Your task to perform on an android device: Search for asus zenbook on amazon.com, select the first entry, add it to the cart, then select checkout. Image 0: 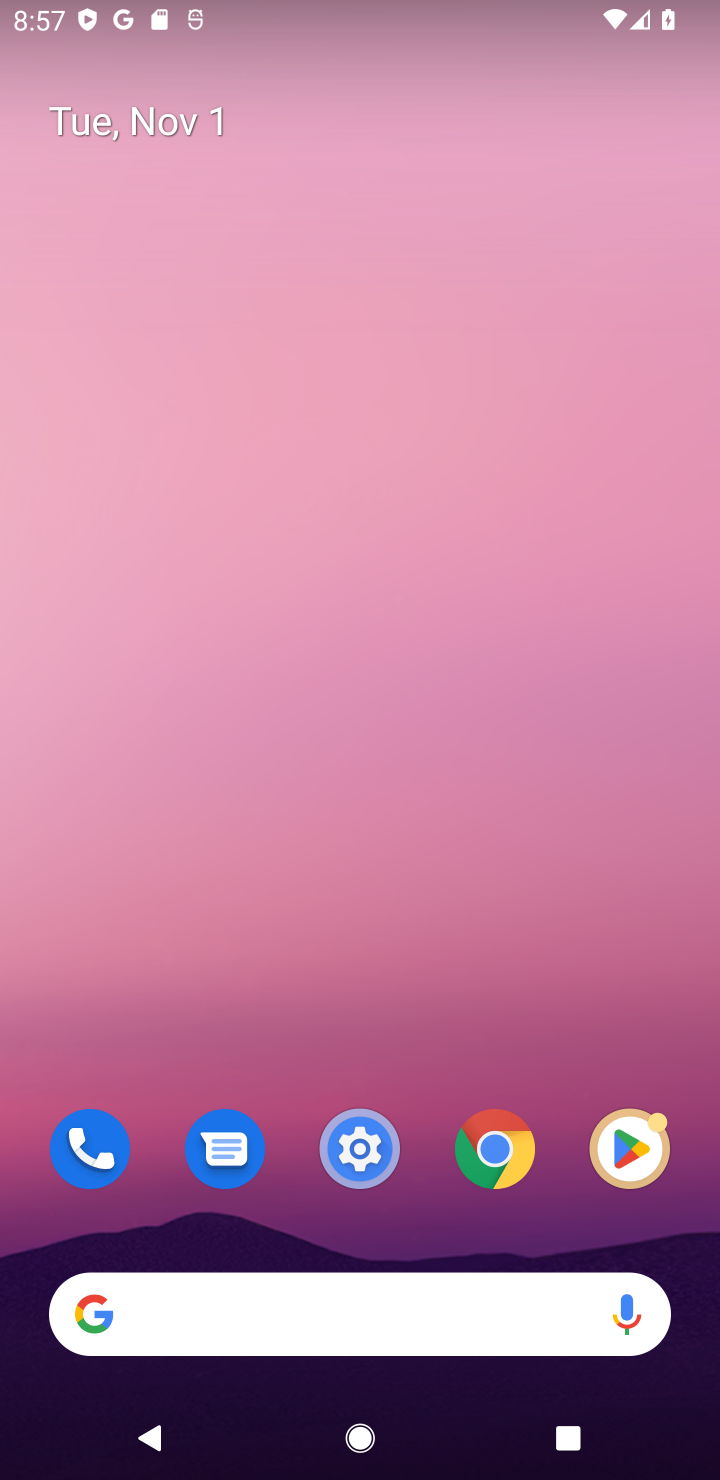
Step 0: click (160, 1308)
Your task to perform on an android device: Search for asus zenbook on amazon.com, select the first entry, add it to the cart, then select checkout. Image 1: 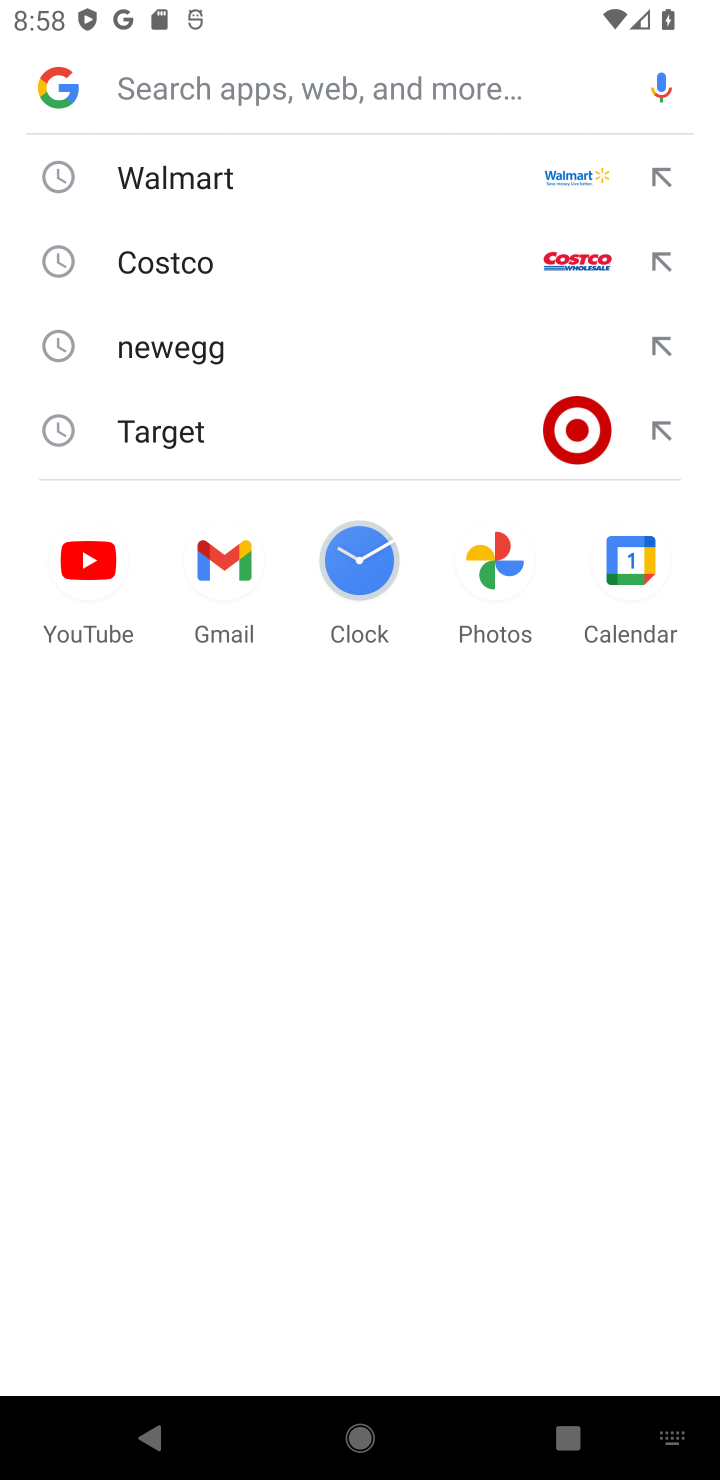
Step 1: type "amazon.com"
Your task to perform on an android device: Search for asus zenbook on amazon.com, select the first entry, add it to the cart, then select checkout. Image 2: 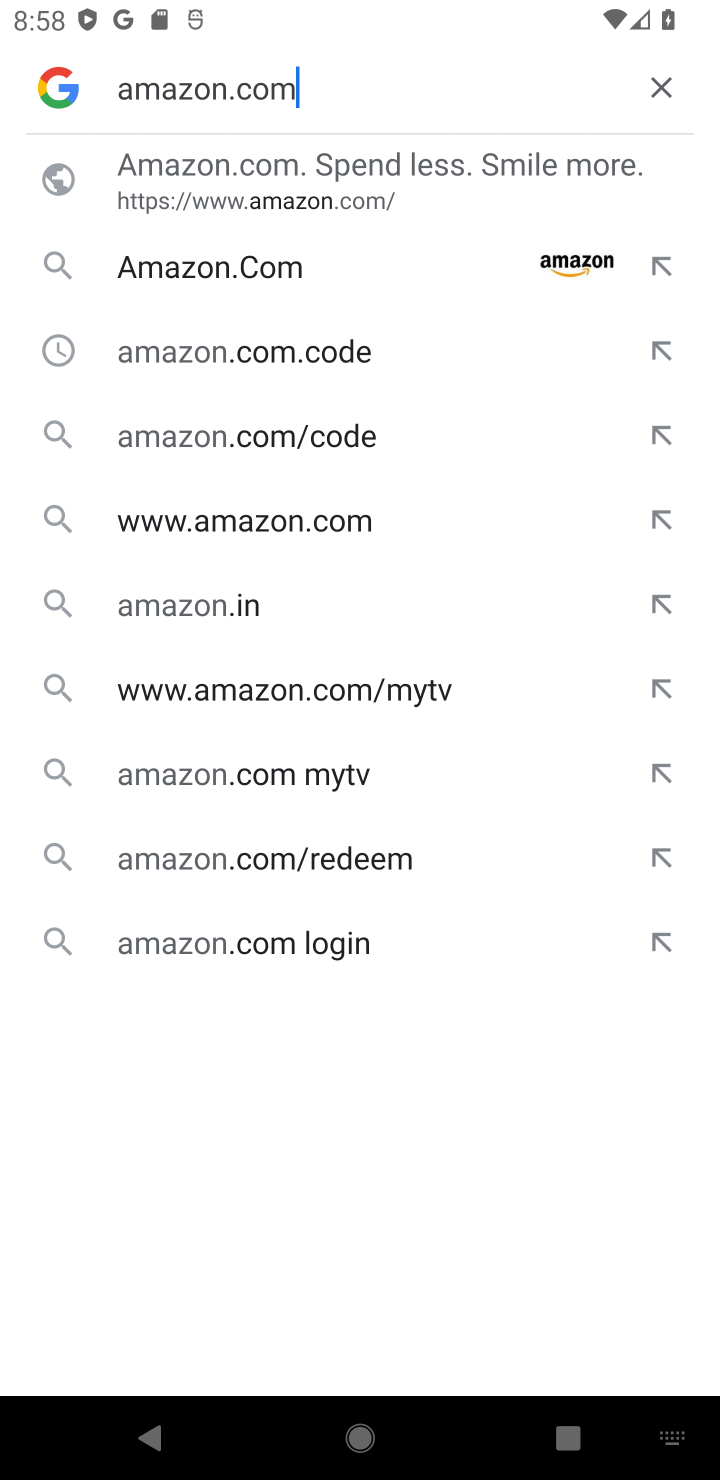
Step 2: press enter
Your task to perform on an android device: Search for asus zenbook on amazon.com, select the first entry, add it to the cart, then select checkout. Image 3: 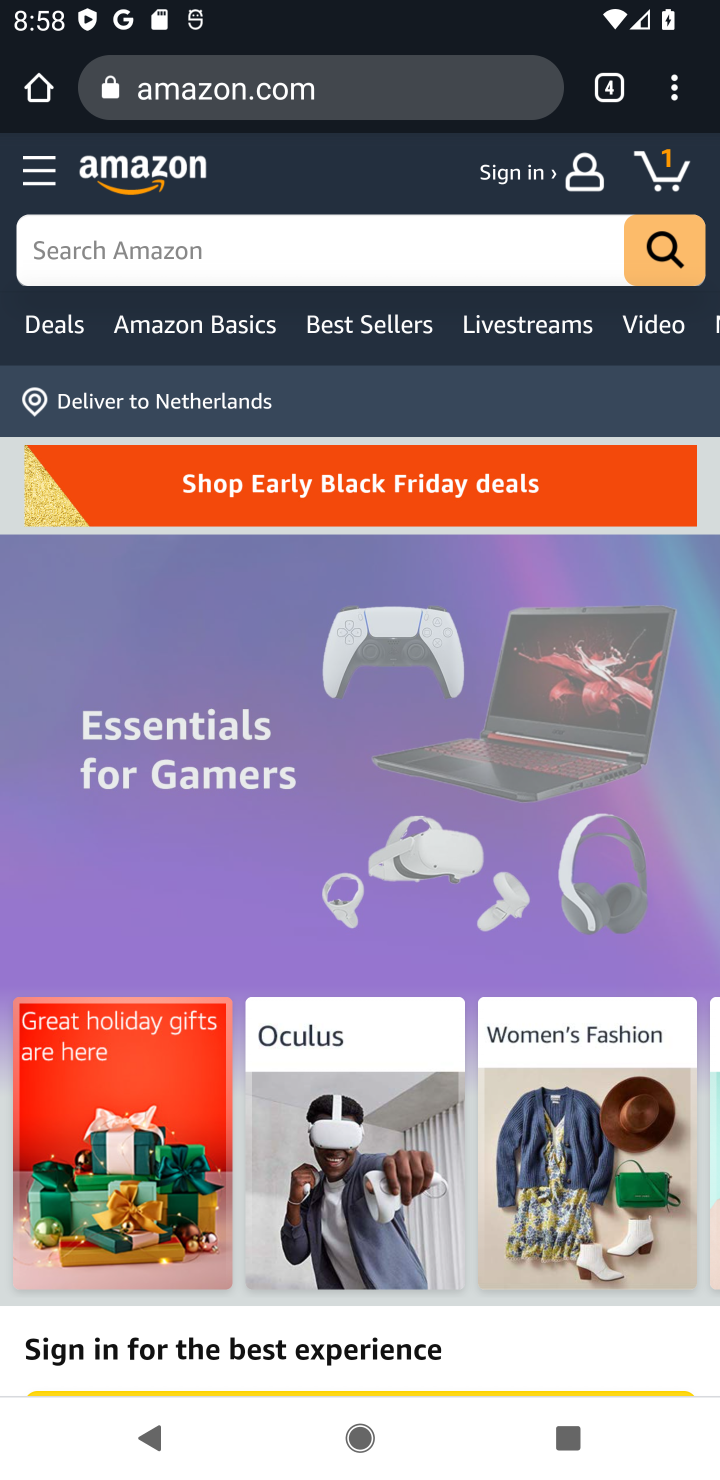
Step 3: click (70, 247)
Your task to perform on an android device: Search for asus zenbook on amazon.com, select the first entry, add it to the cart, then select checkout. Image 4: 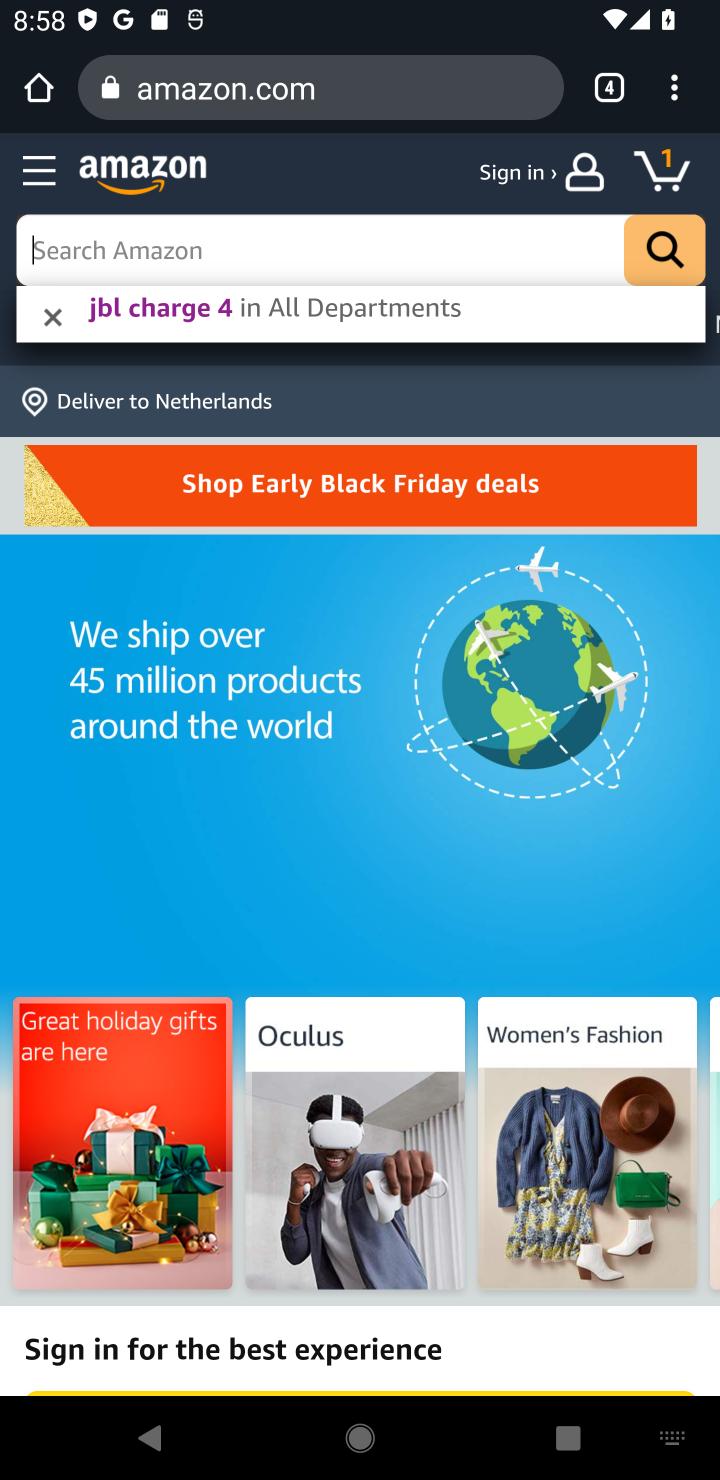
Step 4: type "asus zenbook"
Your task to perform on an android device: Search for asus zenbook on amazon.com, select the first entry, add it to the cart, then select checkout. Image 5: 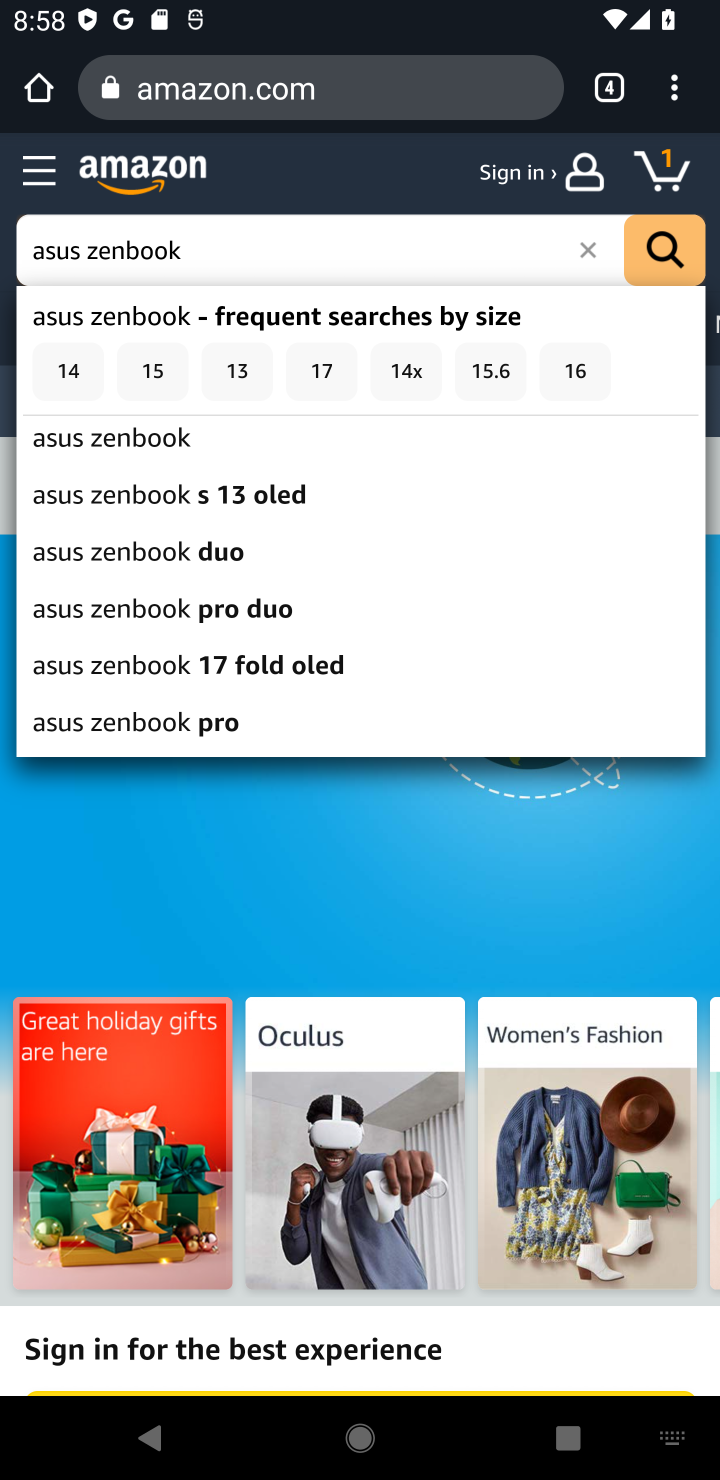
Step 5: click (666, 249)
Your task to perform on an android device: Search for asus zenbook on amazon.com, select the first entry, add it to the cart, then select checkout. Image 6: 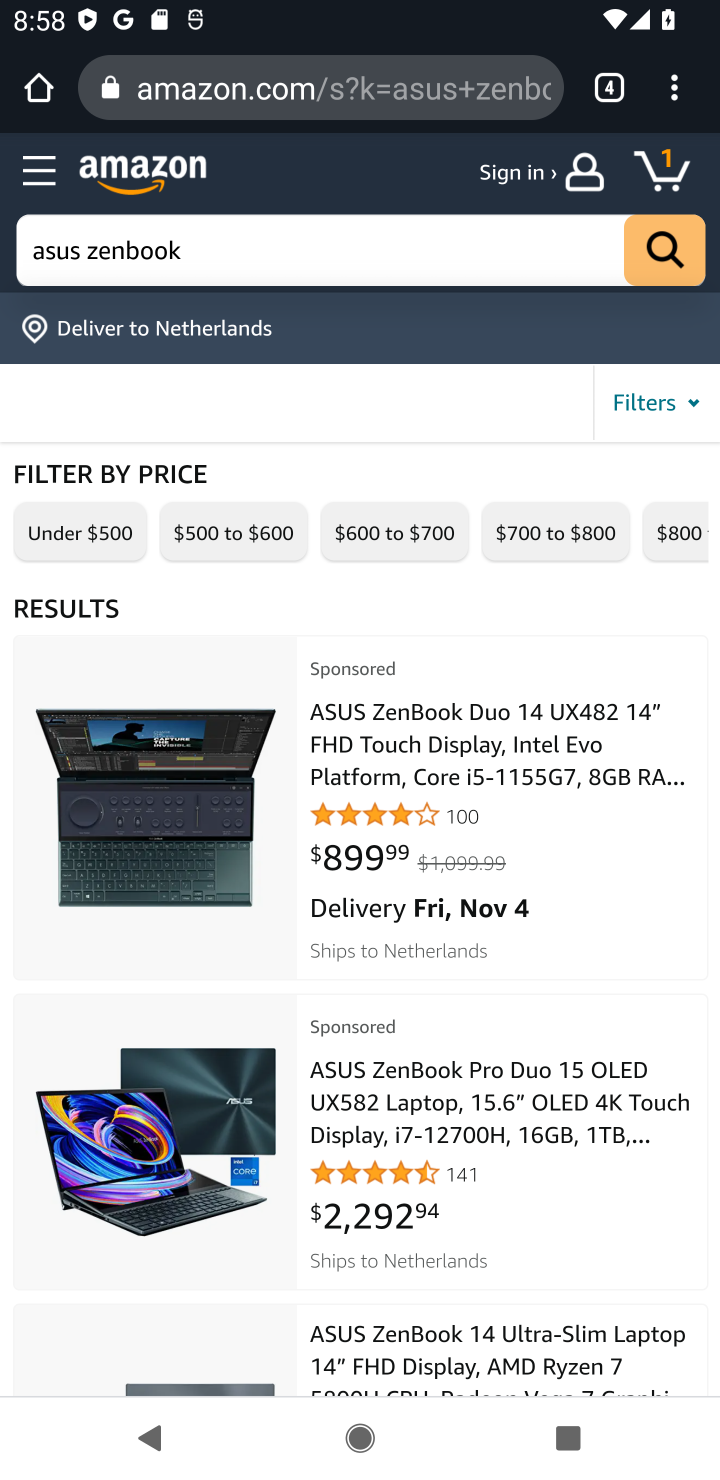
Step 6: click (432, 745)
Your task to perform on an android device: Search for asus zenbook on amazon.com, select the first entry, add it to the cart, then select checkout. Image 7: 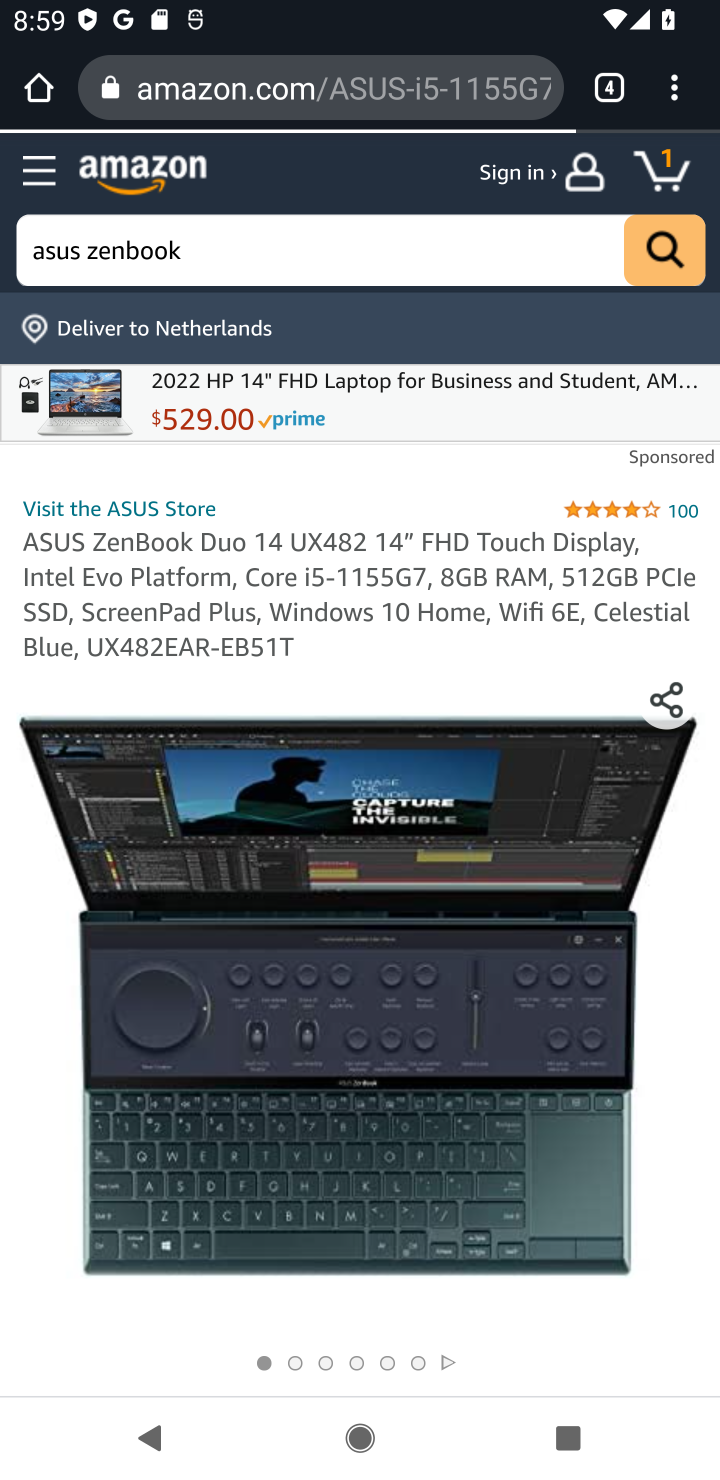
Step 7: drag from (368, 1136) to (455, 506)
Your task to perform on an android device: Search for asus zenbook on amazon.com, select the first entry, add it to the cart, then select checkout. Image 8: 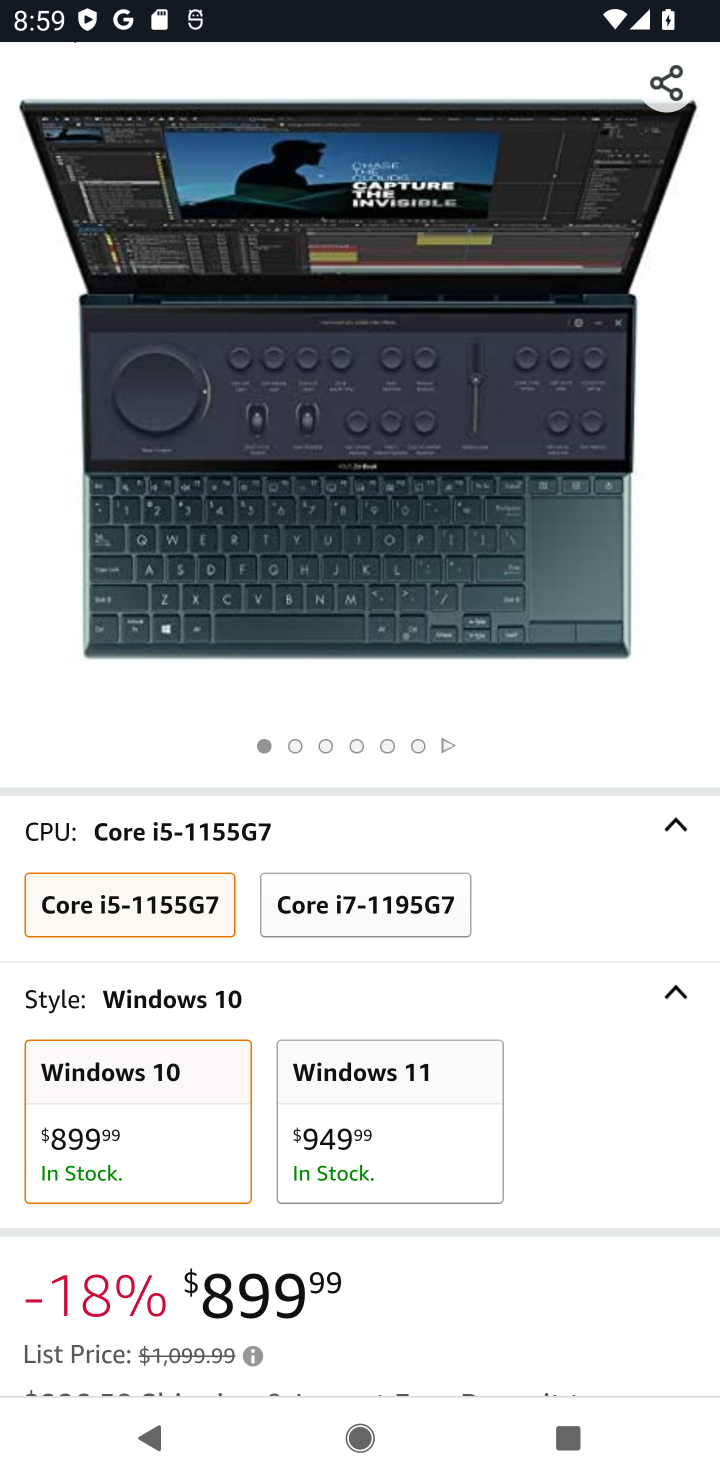
Step 8: drag from (375, 1059) to (442, 513)
Your task to perform on an android device: Search for asus zenbook on amazon.com, select the first entry, add it to the cart, then select checkout. Image 9: 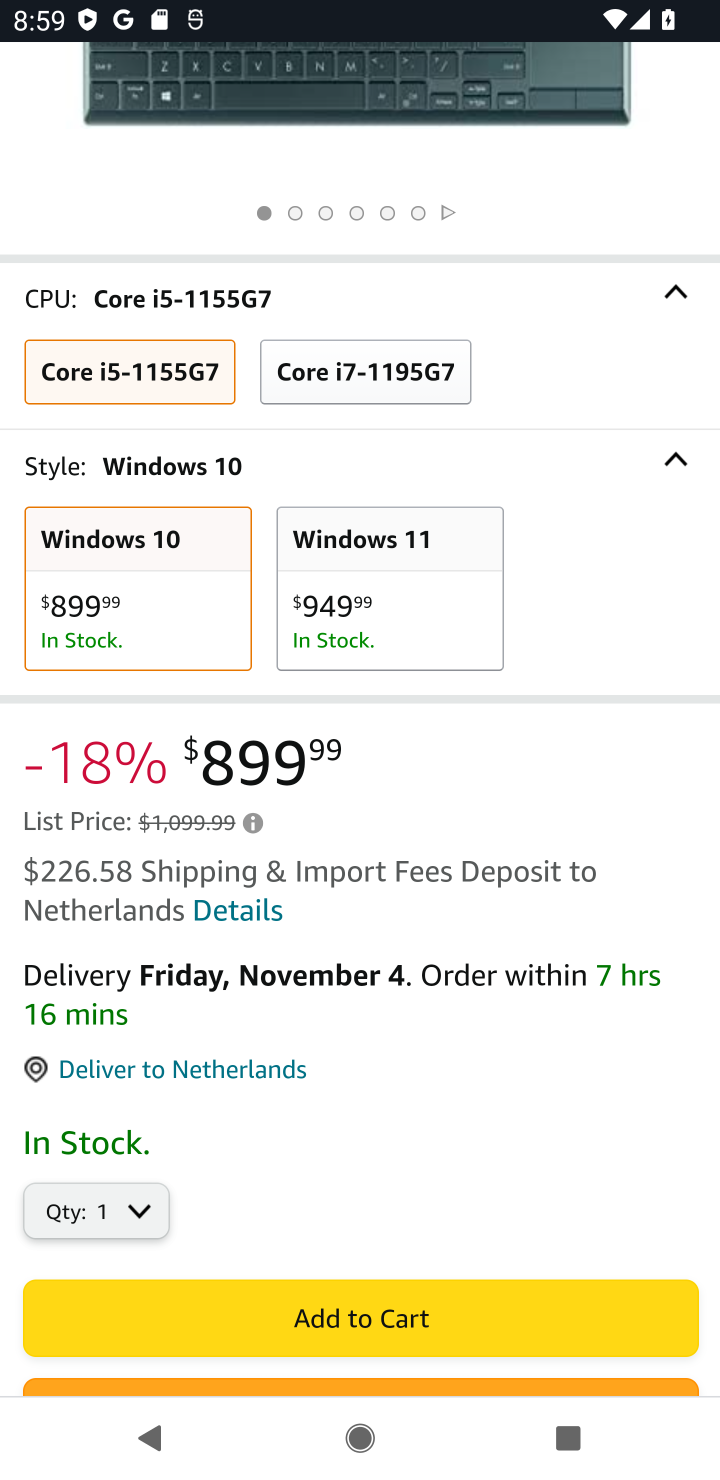
Step 9: drag from (379, 990) to (435, 404)
Your task to perform on an android device: Search for asus zenbook on amazon.com, select the first entry, add it to the cart, then select checkout. Image 10: 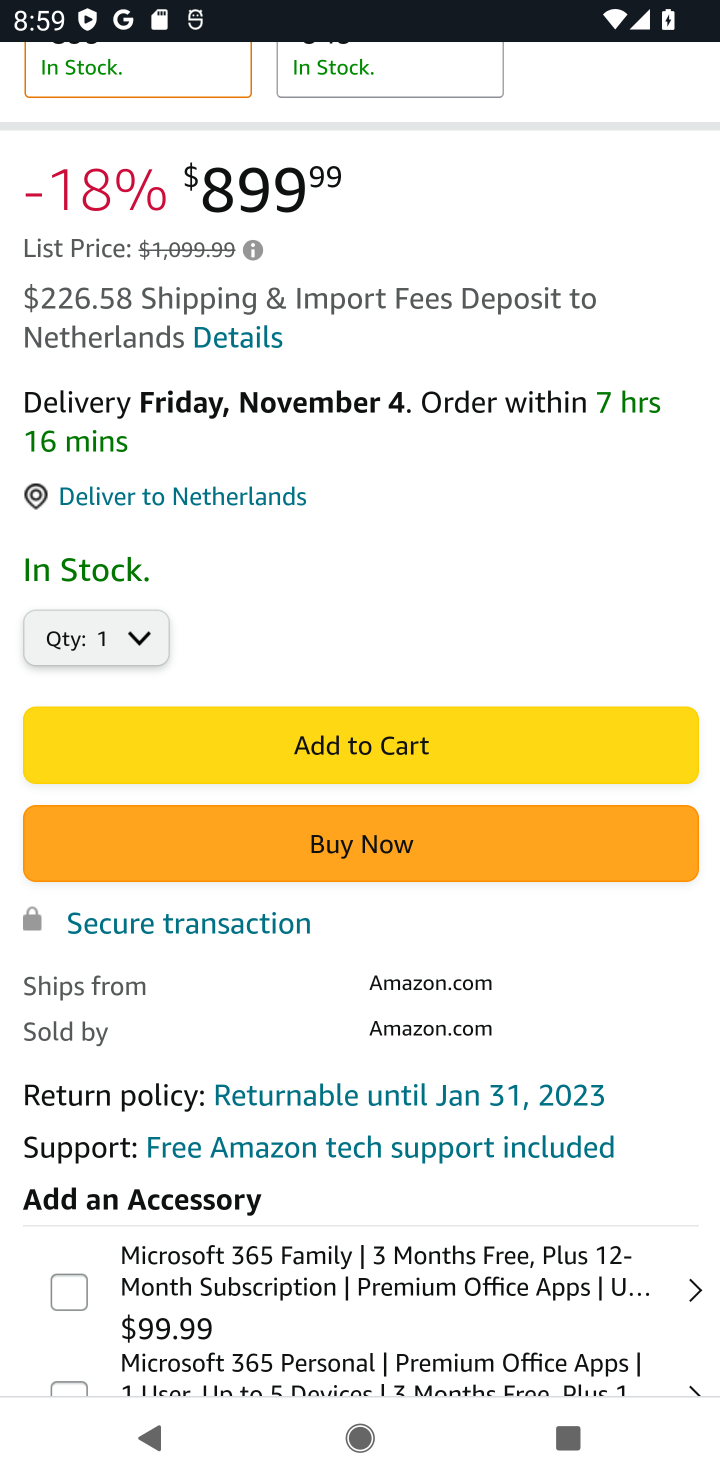
Step 10: click (356, 748)
Your task to perform on an android device: Search for asus zenbook on amazon.com, select the first entry, add it to the cart, then select checkout. Image 11: 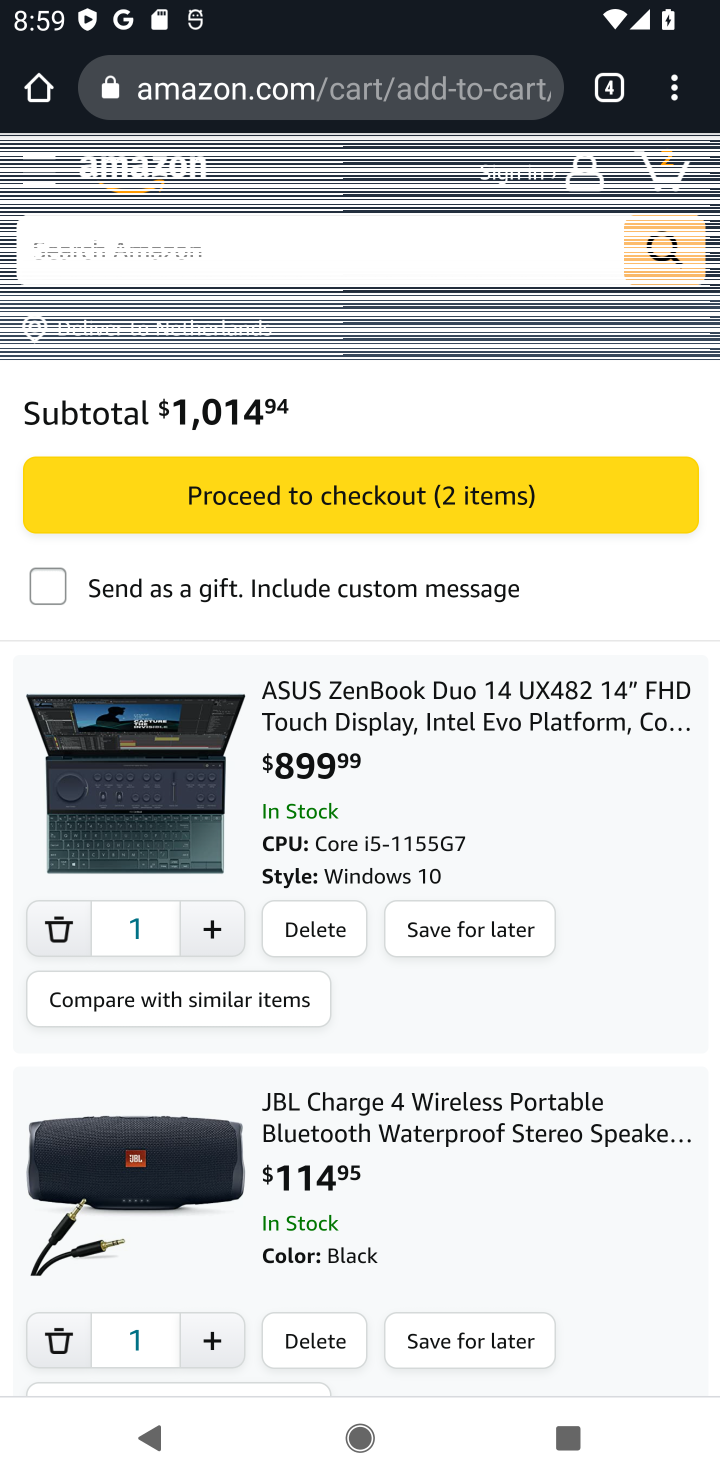
Step 11: click (440, 484)
Your task to perform on an android device: Search for asus zenbook on amazon.com, select the first entry, add it to the cart, then select checkout. Image 12: 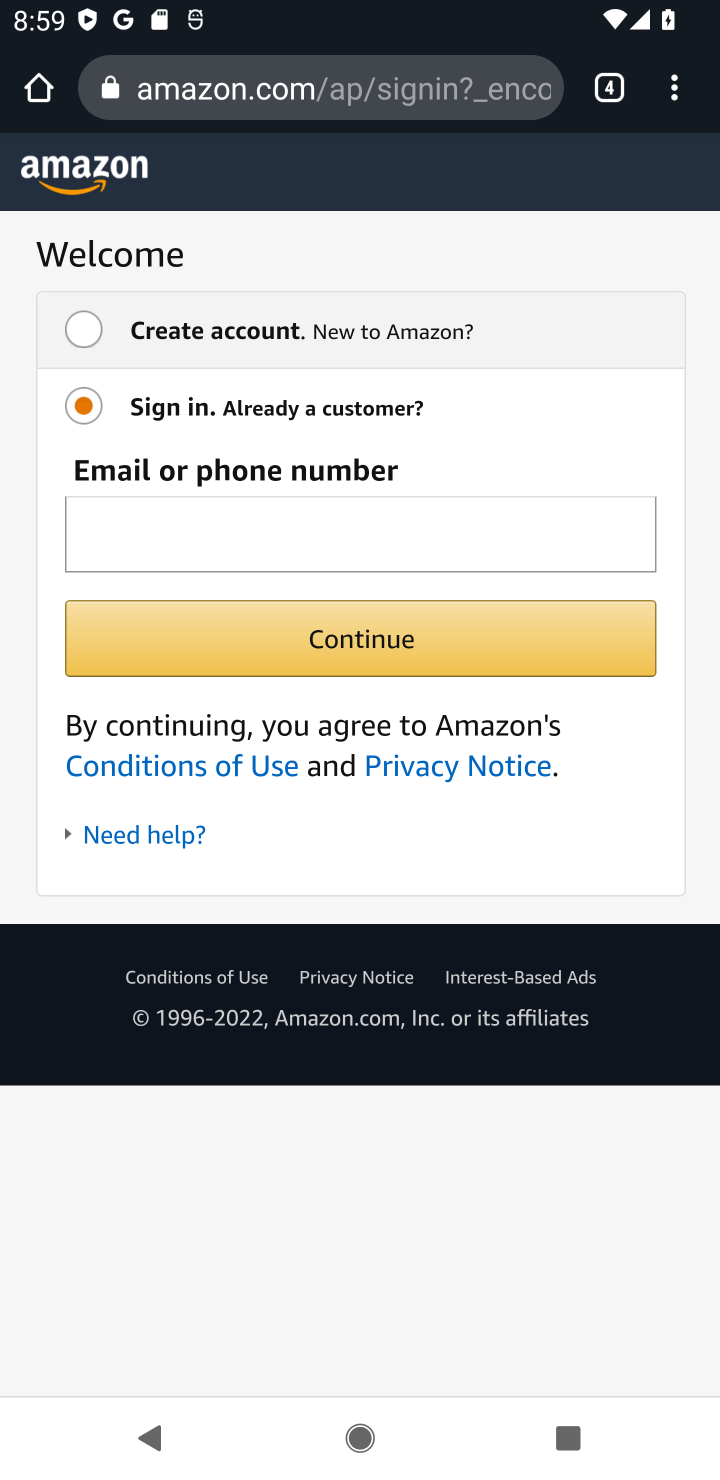
Step 12: task complete